Your task to perform on an android device: set the stopwatch Image 0: 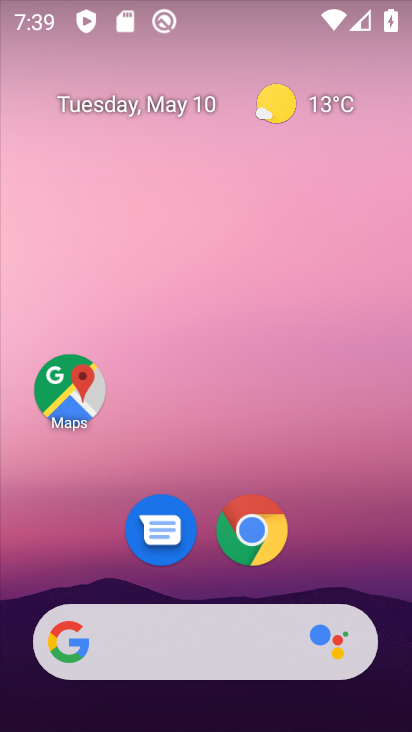
Step 0: drag from (362, 545) to (317, 69)
Your task to perform on an android device: set the stopwatch Image 1: 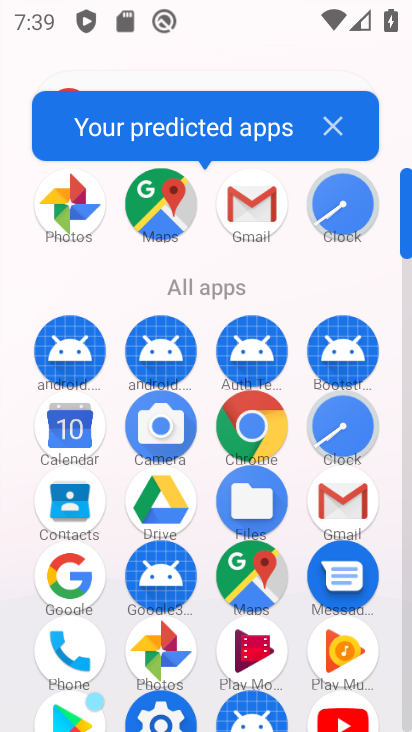
Step 1: click (341, 440)
Your task to perform on an android device: set the stopwatch Image 2: 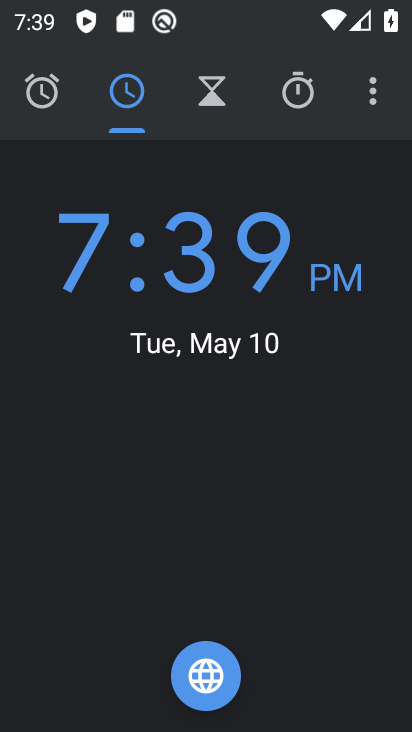
Step 2: click (302, 99)
Your task to perform on an android device: set the stopwatch Image 3: 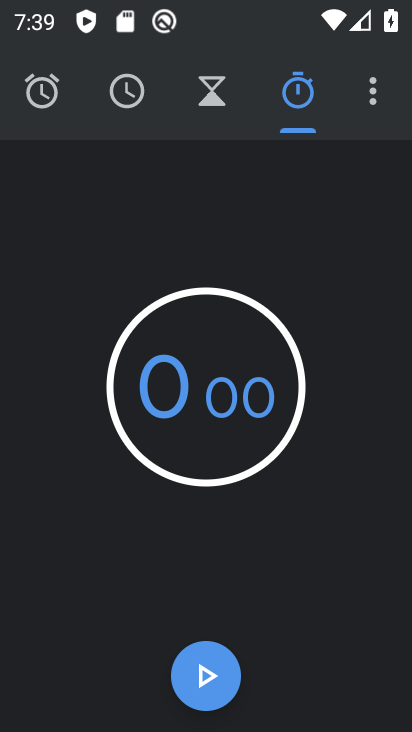
Step 3: click (214, 667)
Your task to perform on an android device: set the stopwatch Image 4: 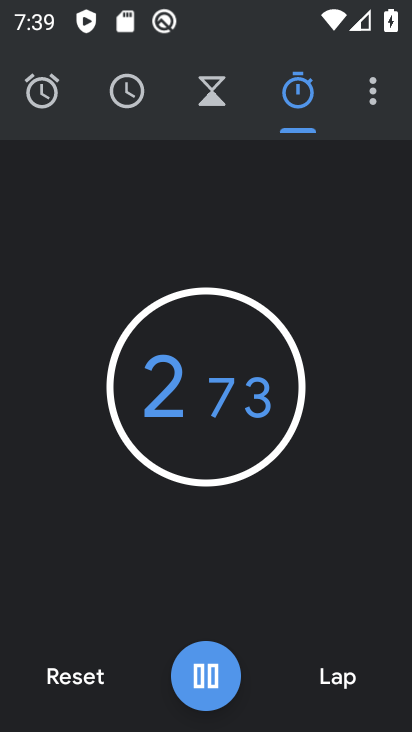
Step 4: click (212, 665)
Your task to perform on an android device: set the stopwatch Image 5: 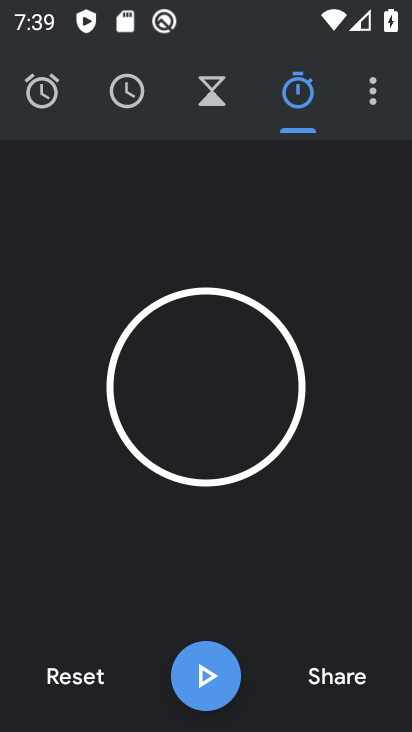
Step 5: task complete